Your task to perform on an android device: delete the emails in spam in the gmail app Image 0: 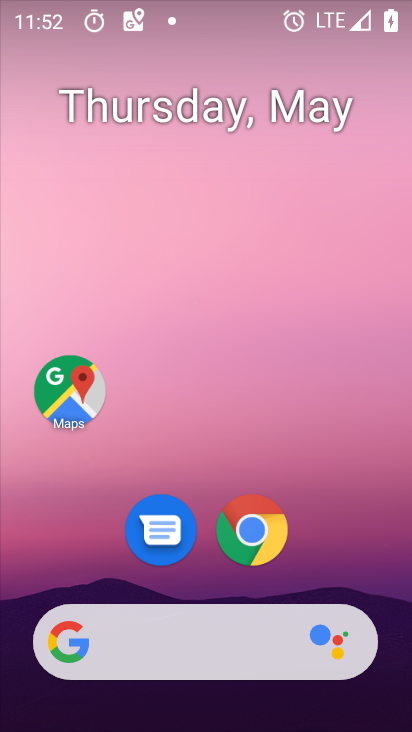
Step 0: drag from (335, 531) to (330, 0)
Your task to perform on an android device: delete the emails in spam in the gmail app Image 1: 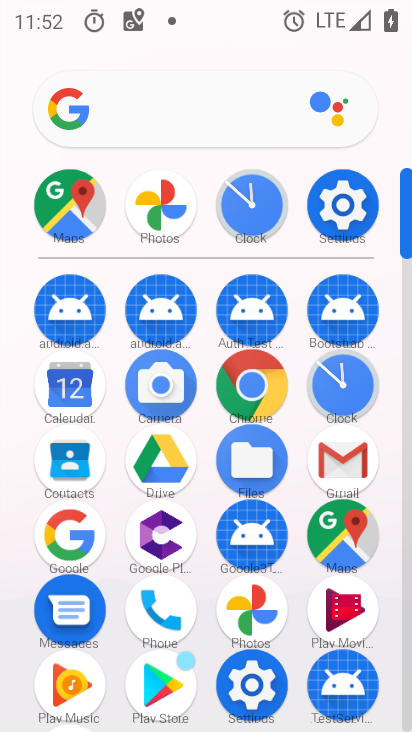
Step 1: click (332, 459)
Your task to perform on an android device: delete the emails in spam in the gmail app Image 2: 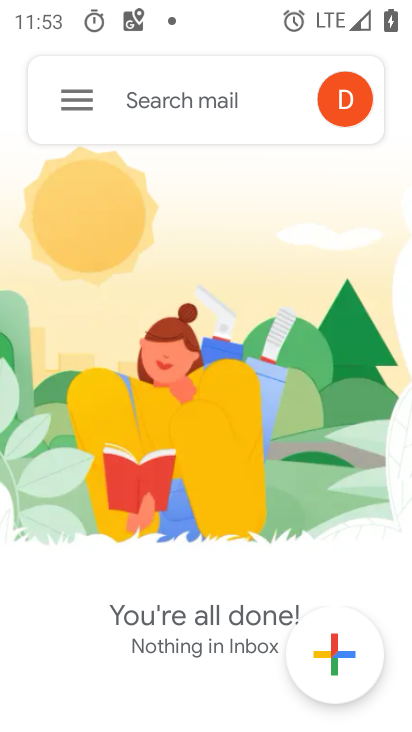
Step 2: click (83, 108)
Your task to perform on an android device: delete the emails in spam in the gmail app Image 3: 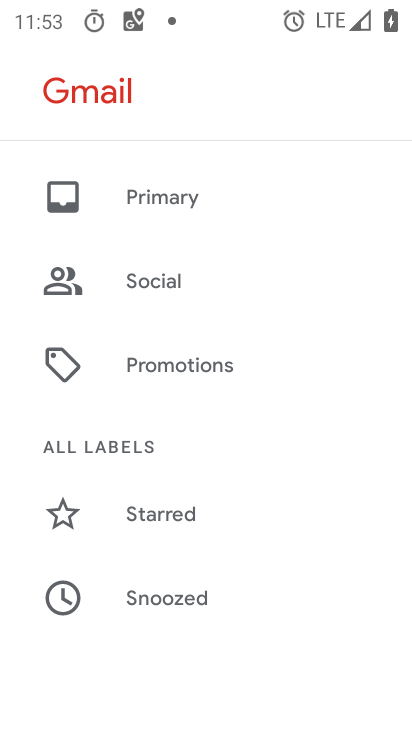
Step 3: drag from (251, 287) to (203, 625)
Your task to perform on an android device: delete the emails in spam in the gmail app Image 4: 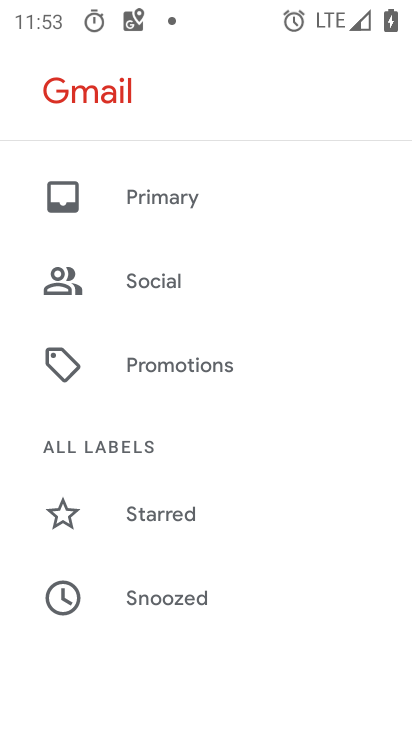
Step 4: drag from (182, 517) to (270, 184)
Your task to perform on an android device: delete the emails in spam in the gmail app Image 5: 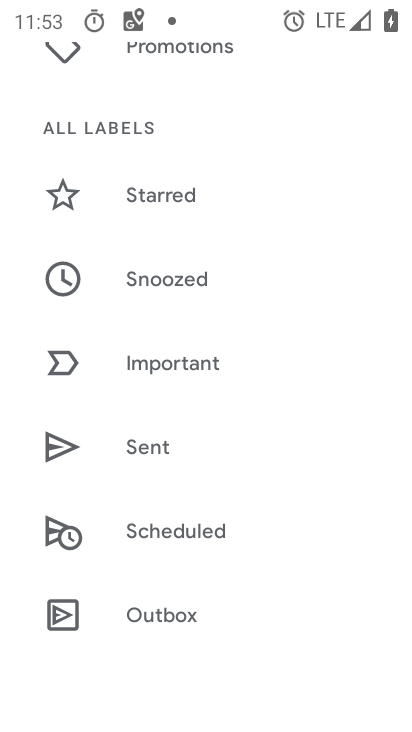
Step 5: drag from (243, 594) to (291, 164)
Your task to perform on an android device: delete the emails in spam in the gmail app Image 6: 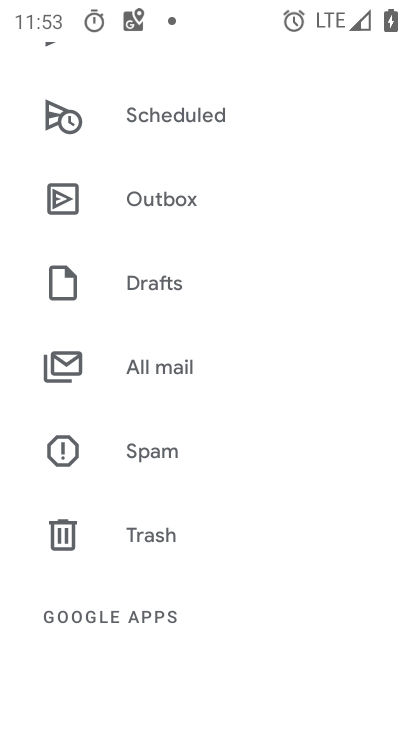
Step 6: click (238, 451)
Your task to perform on an android device: delete the emails in spam in the gmail app Image 7: 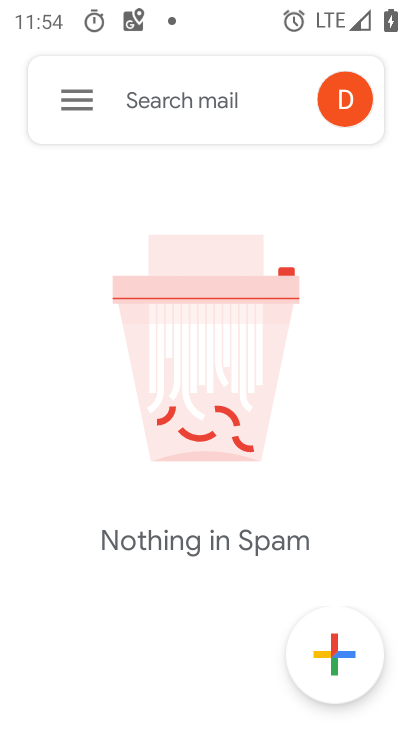
Step 7: task complete